Your task to perform on an android device: Open Wikipedia Image 0: 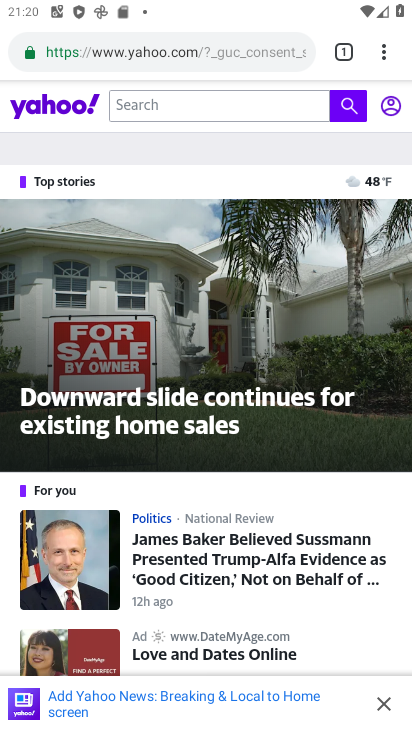
Step 0: press home button
Your task to perform on an android device: Open Wikipedia Image 1: 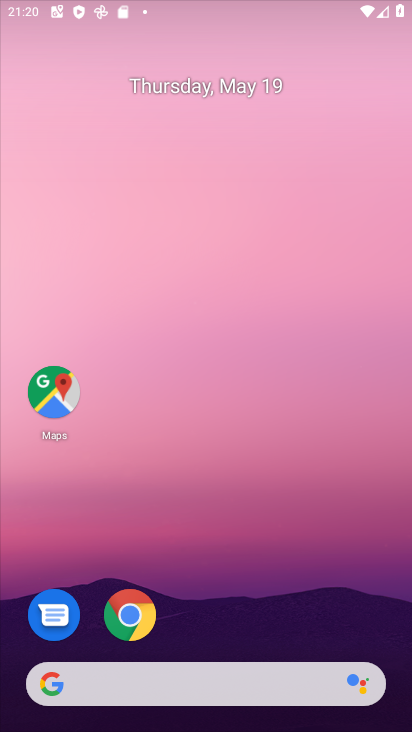
Step 1: drag from (229, 605) to (325, 91)
Your task to perform on an android device: Open Wikipedia Image 2: 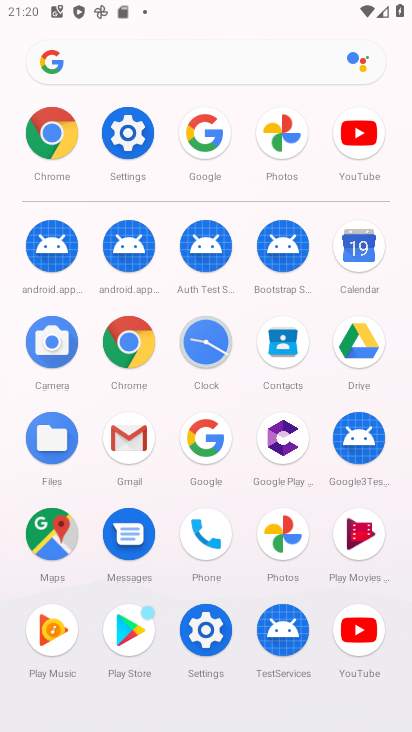
Step 2: click (207, 131)
Your task to perform on an android device: Open Wikipedia Image 3: 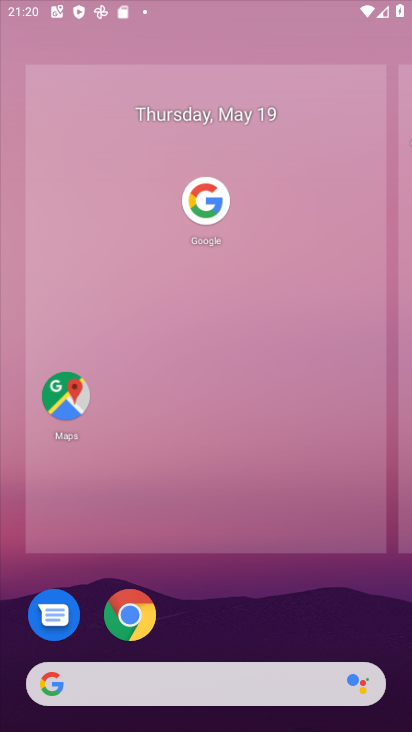
Step 3: click (130, 611)
Your task to perform on an android device: Open Wikipedia Image 4: 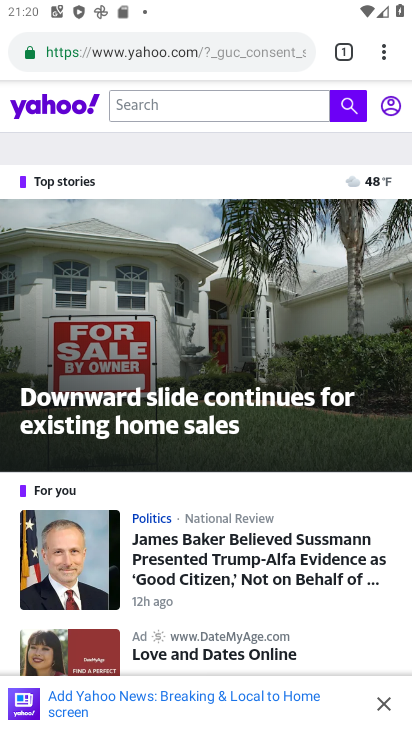
Step 4: press back button
Your task to perform on an android device: Open Wikipedia Image 5: 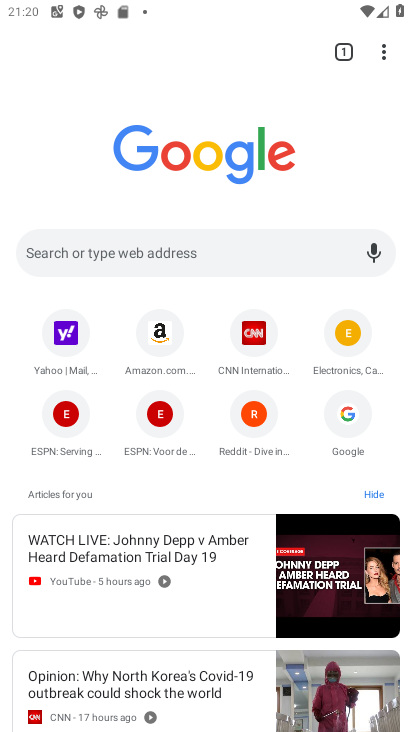
Step 5: click (151, 252)
Your task to perform on an android device: Open Wikipedia Image 6: 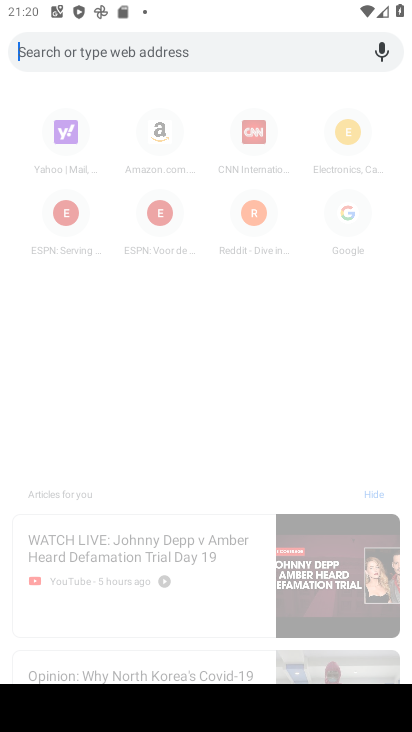
Step 6: type "wikkipedia"
Your task to perform on an android device: Open Wikipedia Image 7: 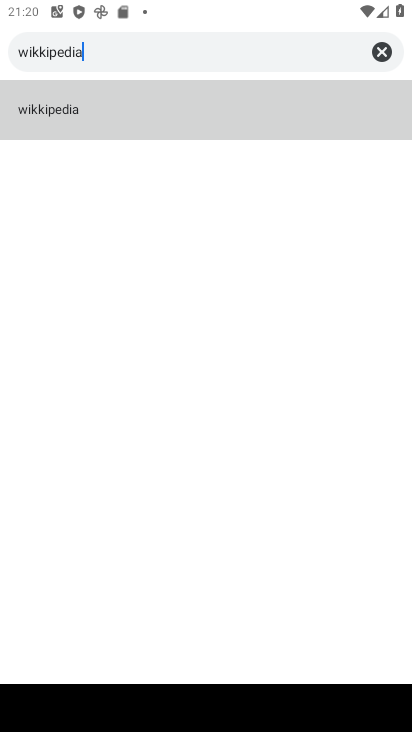
Step 7: click (97, 120)
Your task to perform on an android device: Open Wikipedia Image 8: 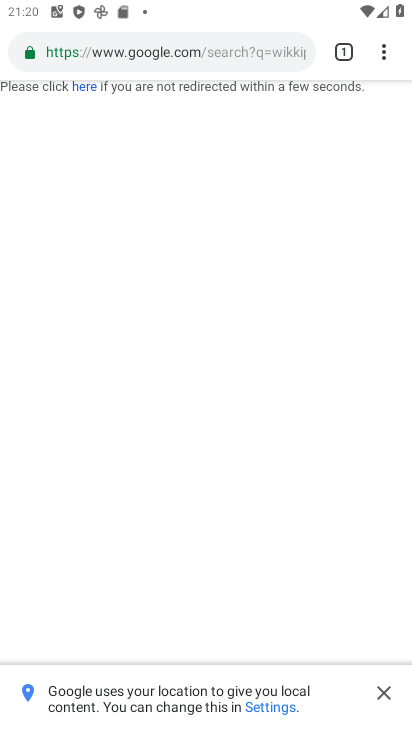
Step 8: click (79, 85)
Your task to perform on an android device: Open Wikipedia Image 9: 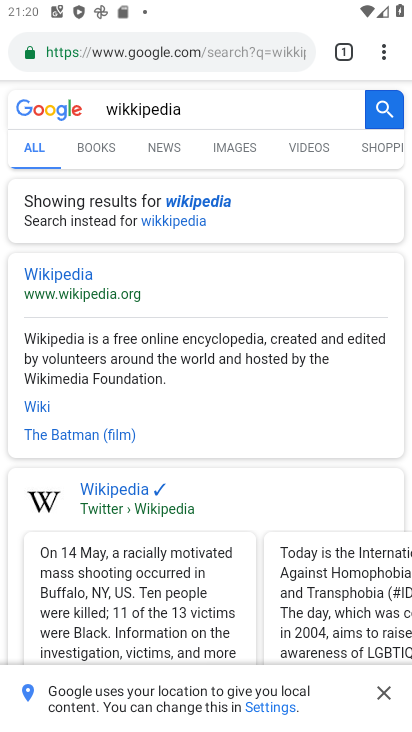
Step 9: click (65, 271)
Your task to perform on an android device: Open Wikipedia Image 10: 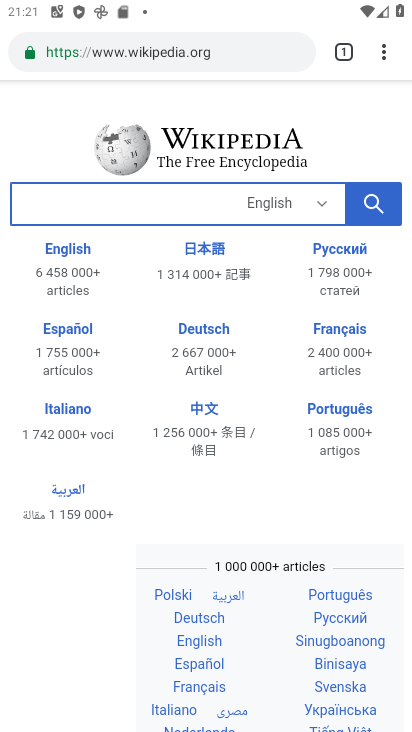
Step 10: task complete